Your task to perform on an android device: move an email to a new category in the gmail app Image 0: 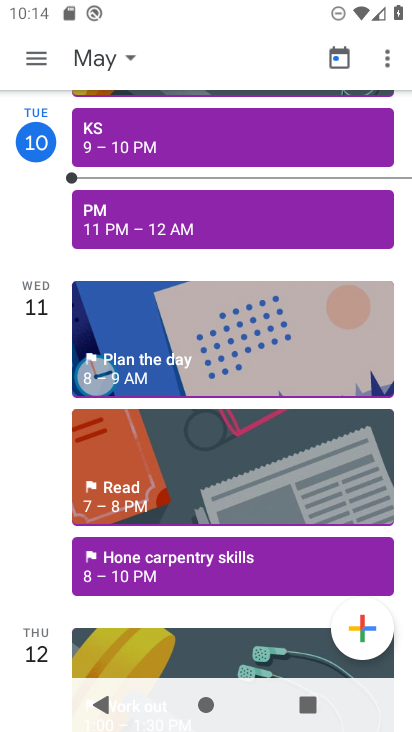
Step 0: press home button
Your task to perform on an android device: move an email to a new category in the gmail app Image 1: 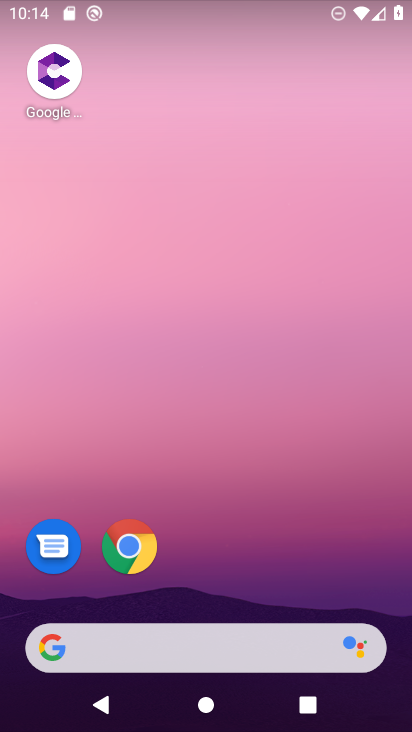
Step 1: drag from (288, 513) to (186, 57)
Your task to perform on an android device: move an email to a new category in the gmail app Image 2: 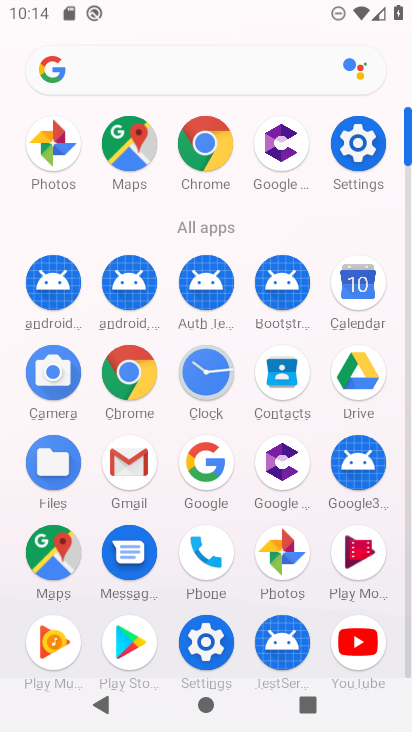
Step 2: click (135, 459)
Your task to perform on an android device: move an email to a new category in the gmail app Image 3: 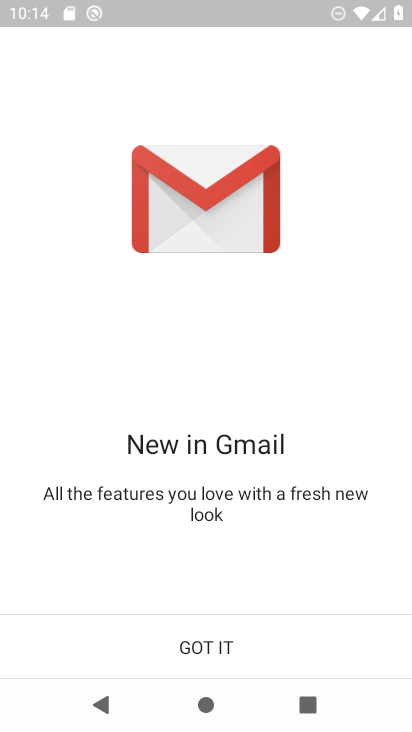
Step 3: click (270, 619)
Your task to perform on an android device: move an email to a new category in the gmail app Image 4: 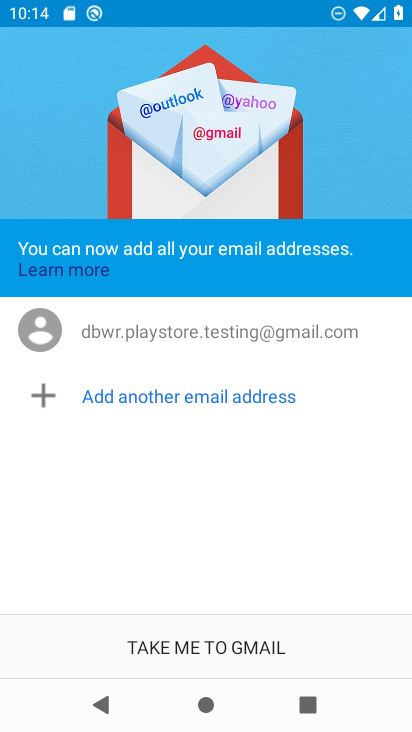
Step 4: click (235, 645)
Your task to perform on an android device: move an email to a new category in the gmail app Image 5: 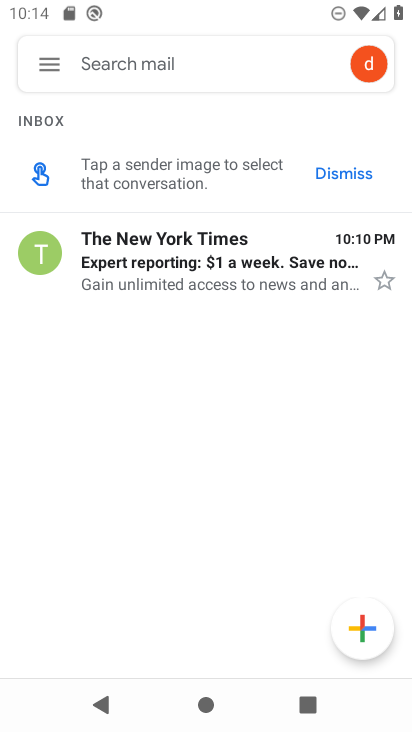
Step 5: click (226, 248)
Your task to perform on an android device: move an email to a new category in the gmail app Image 6: 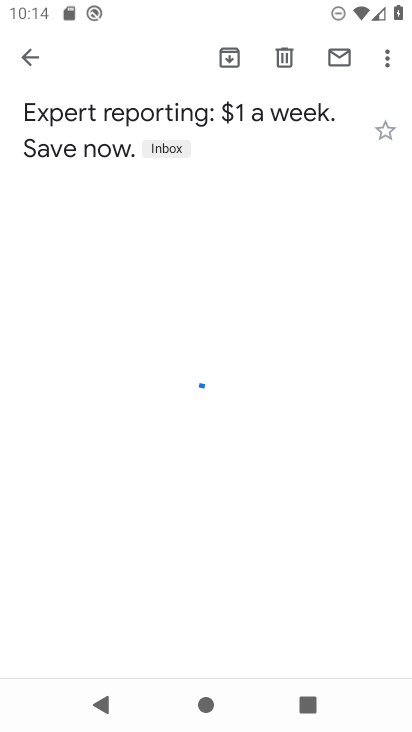
Step 6: click (391, 49)
Your task to perform on an android device: move an email to a new category in the gmail app Image 7: 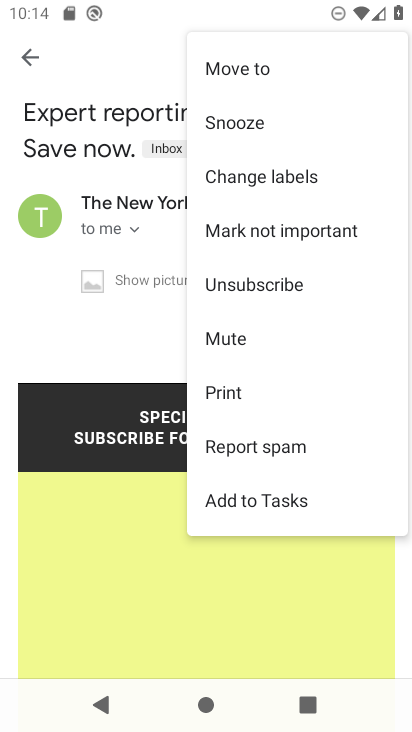
Step 7: click (251, 67)
Your task to perform on an android device: move an email to a new category in the gmail app Image 8: 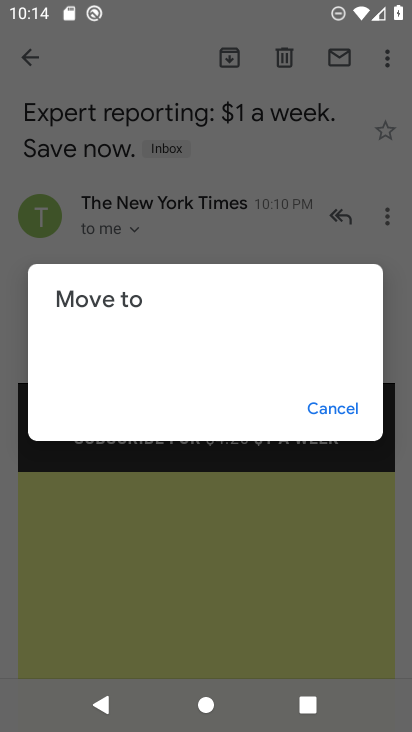
Step 8: task complete